Your task to perform on an android device: Go to Wikipedia Image 0: 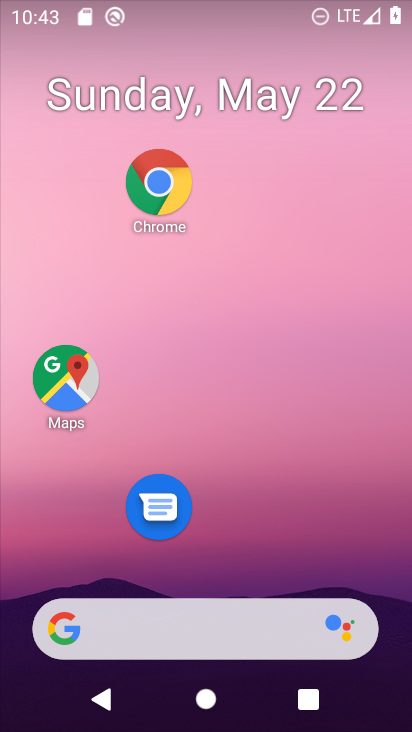
Step 0: click (234, 625)
Your task to perform on an android device: Go to Wikipedia Image 1: 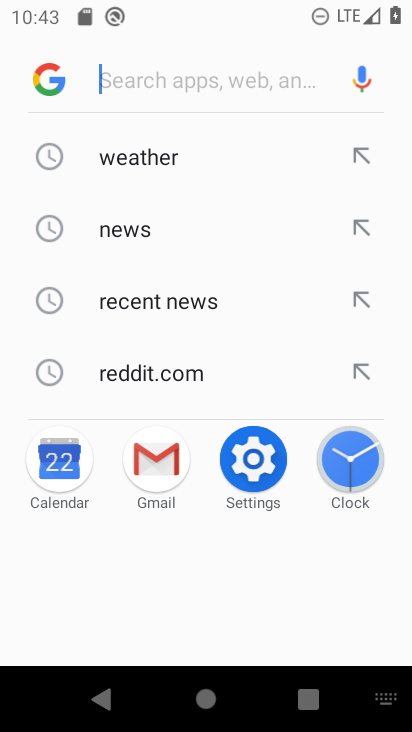
Step 1: type "wikipedia"
Your task to perform on an android device: Go to Wikipedia Image 2: 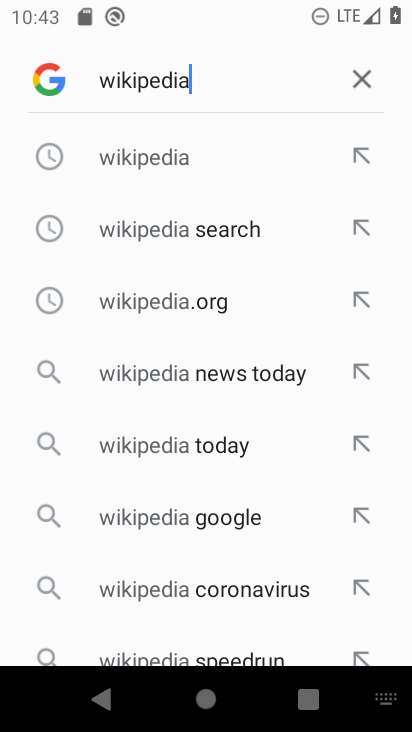
Step 2: click (251, 163)
Your task to perform on an android device: Go to Wikipedia Image 3: 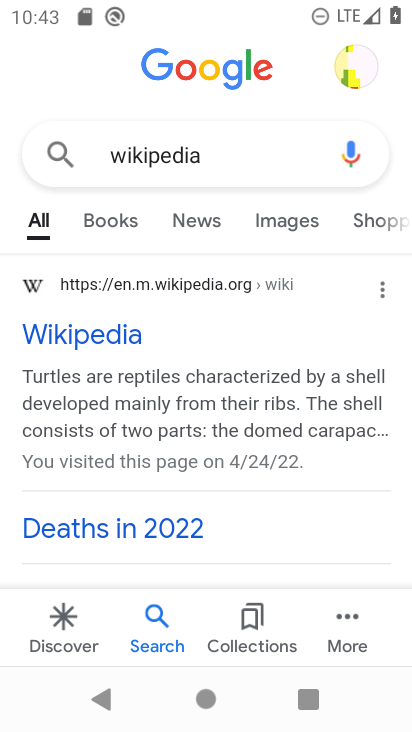
Step 3: click (109, 289)
Your task to perform on an android device: Go to Wikipedia Image 4: 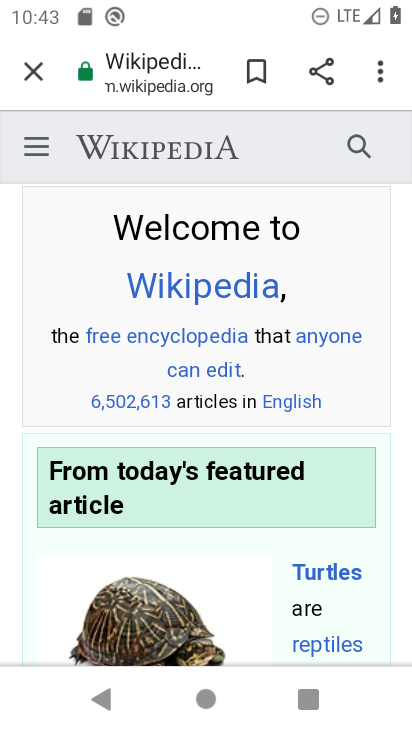
Step 4: task complete